Your task to perform on an android device: Play the last video I watched on Youtube Image 0: 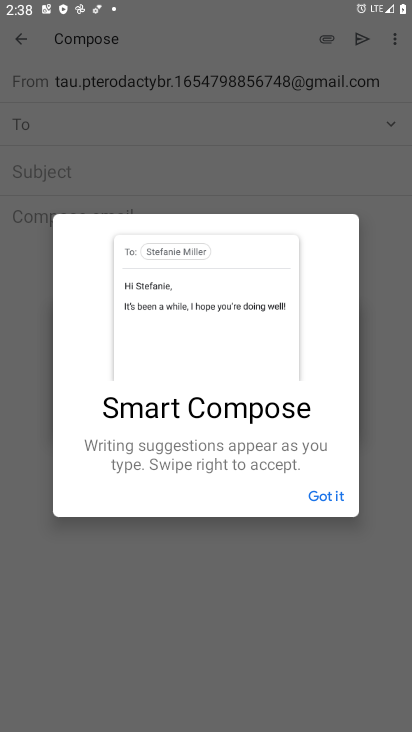
Step 0: press home button
Your task to perform on an android device: Play the last video I watched on Youtube Image 1: 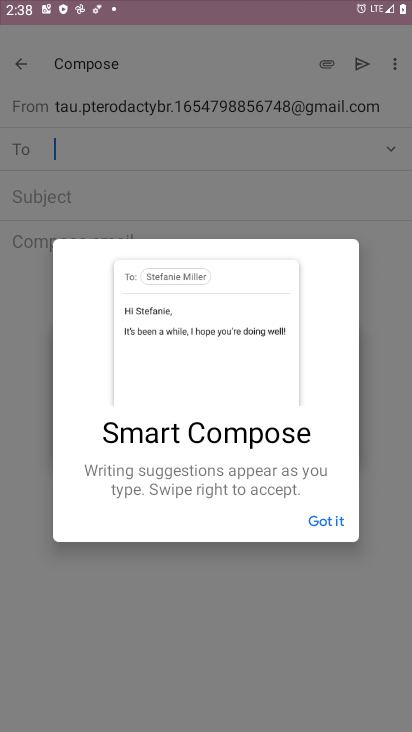
Step 1: drag from (403, 676) to (241, 23)
Your task to perform on an android device: Play the last video I watched on Youtube Image 2: 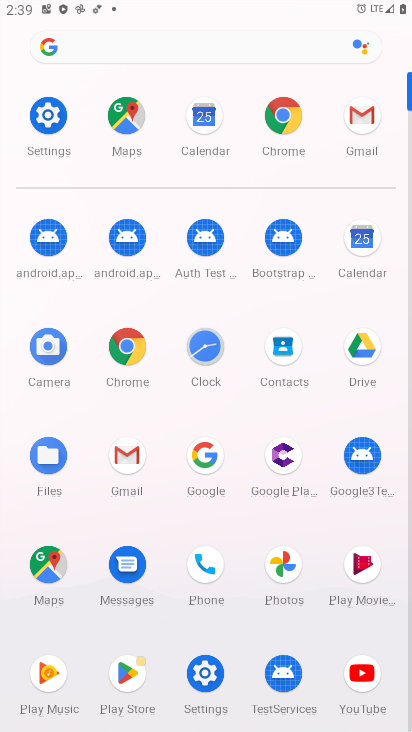
Step 2: click (355, 688)
Your task to perform on an android device: Play the last video I watched on Youtube Image 3: 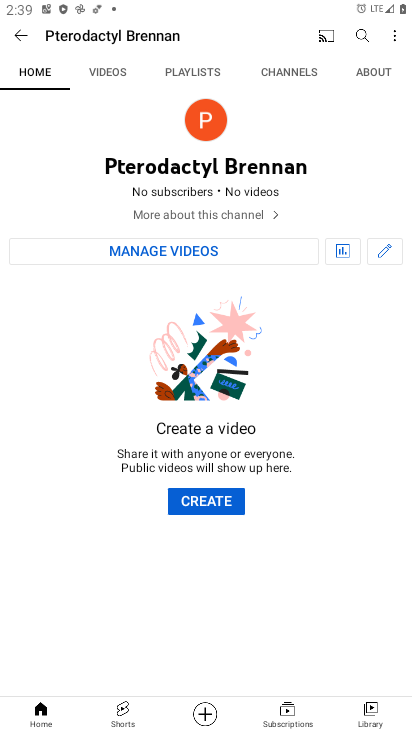
Step 3: task complete